Your task to perform on an android device: see sites visited before in the chrome app Image 0: 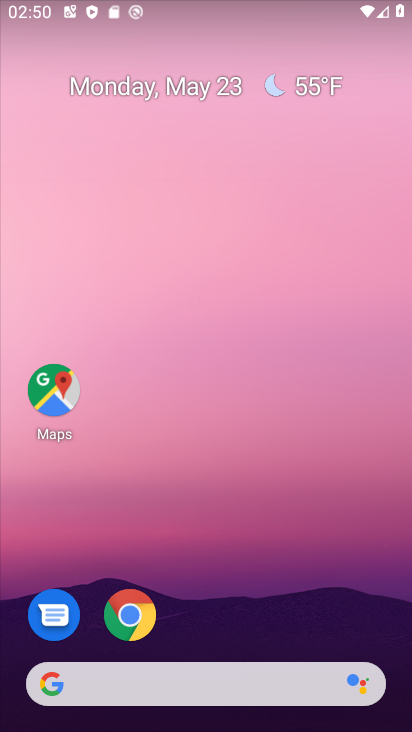
Step 0: drag from (380, 651) to (368, 282)
Your task to perform on an android device: see sites visited before in the chrome app Image 1: 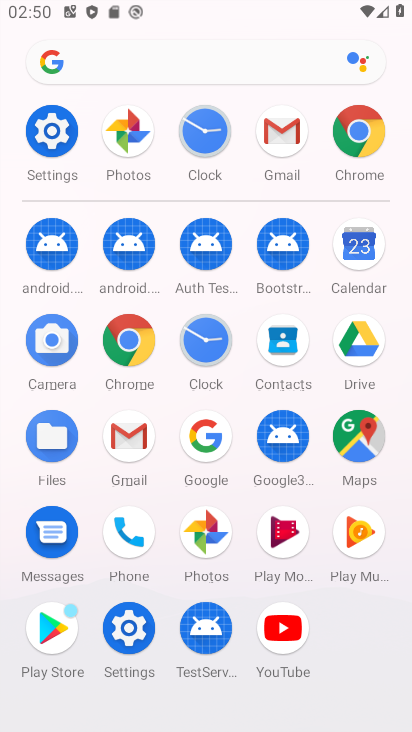
Step 1: click (351, 156)
Your task to perform on an android device: see sites visited before in the chrome app Image 2: 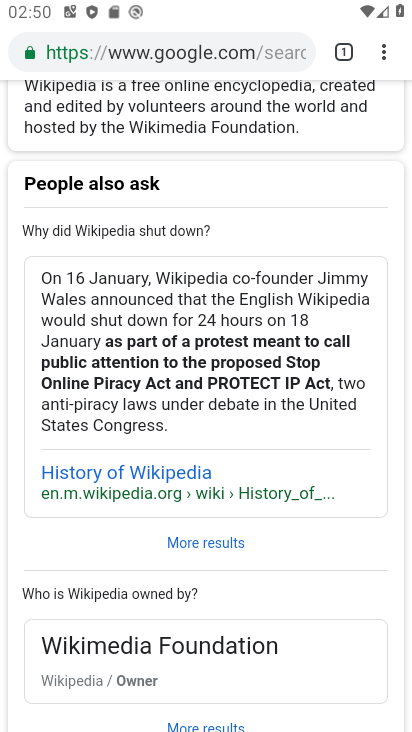
Step 2: click (380, 55)
Your task to perform on an android device: see sites visited before in the chrome app Image 3: 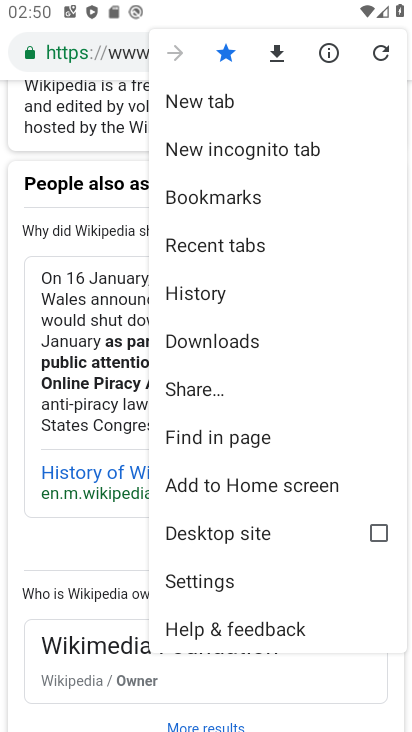
Step 3: click (242, 306)
Your task to perform on an android device: see sites visited before in the chrome app Image 4: 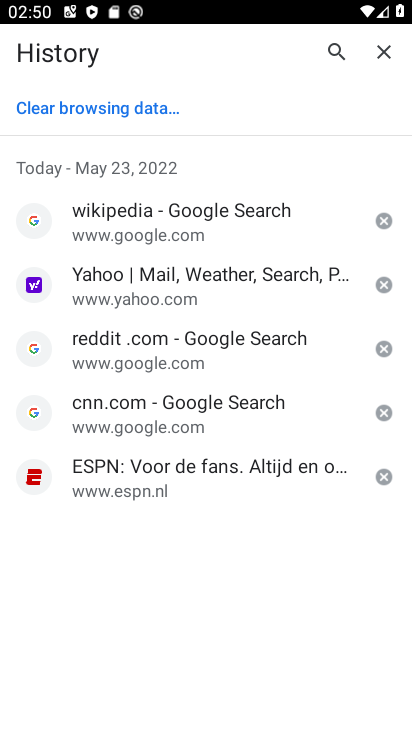
Step 4: task complete